Your task to perform on an android device: change the clock display to show seconds Image 0: 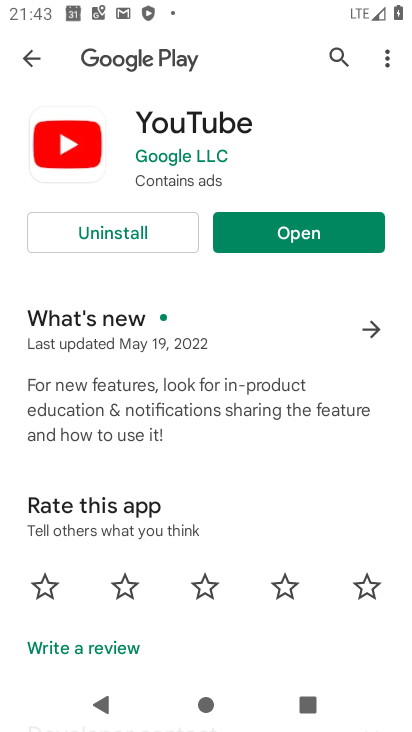
Step 0: press home button
Your task to perform on an android device: change the clock display to show seconds Image 1: 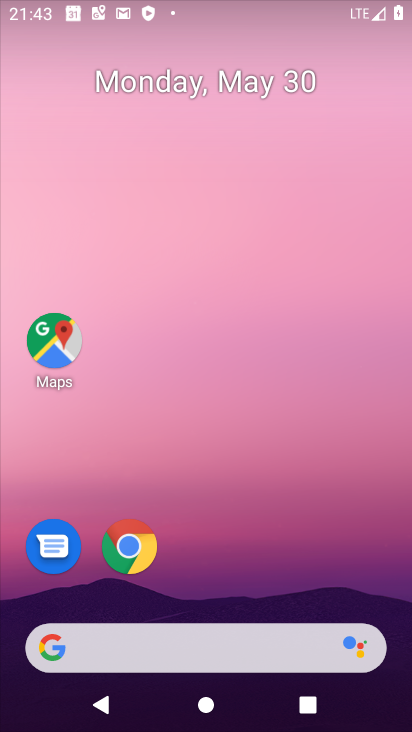
Step 1: drag from (363, 564) to (277, 188)
Your task to perform on an android device: change the clock display to show seconds Image 2: 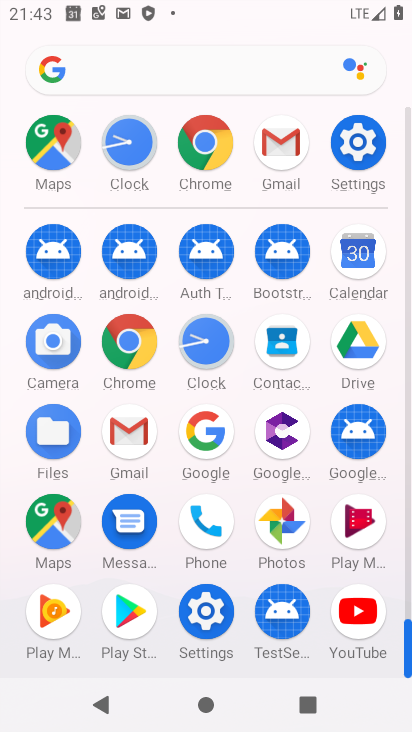
Step 2: click (184, 356)
Your task to perform on an android device: change the clock display to show seconds Image 3: 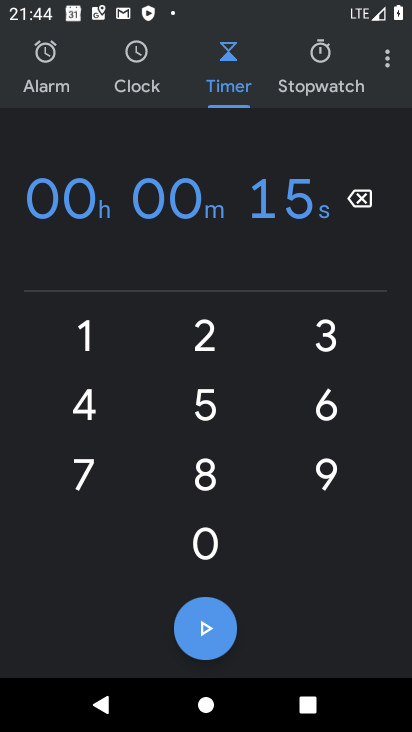
Step 3: drag from (396, 58) to (270, 108)
Your task to perform on an android device: change the clock display to show seconds Image 4: 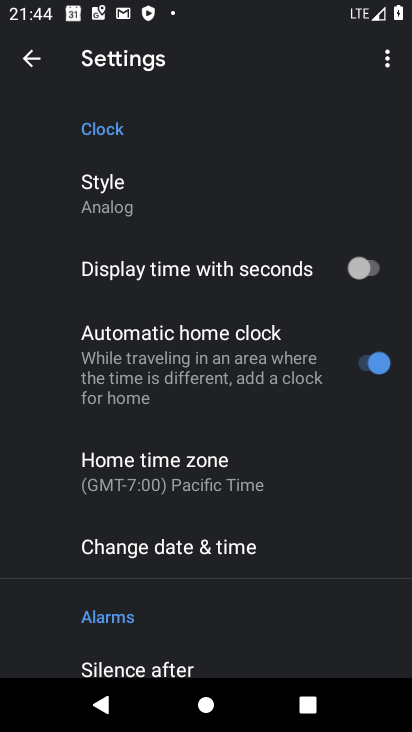
Step 4: click (372, 275)
Your task to perform on an android device: change the clock display to show seconds Image 5: 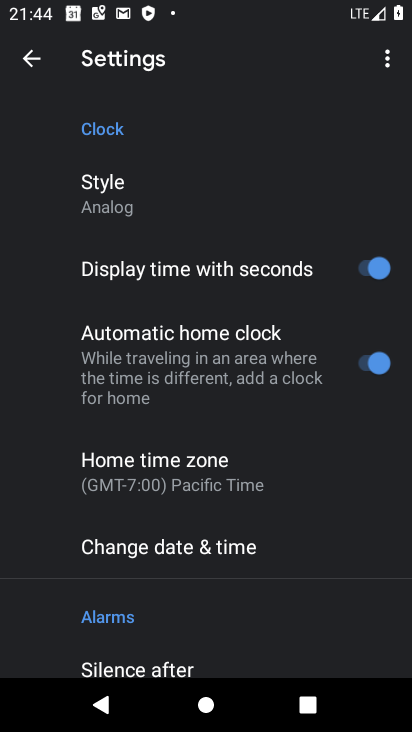
Step 5: task complete